Your task to perform on an android device: show emergency info Image 0: 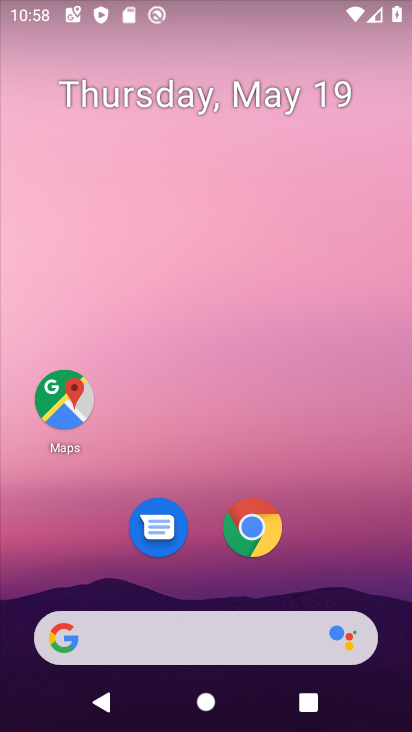
Step 0: drag from (210, 520) to (243, 4)
Your task to perform on an android device: show emergency info Image 1: 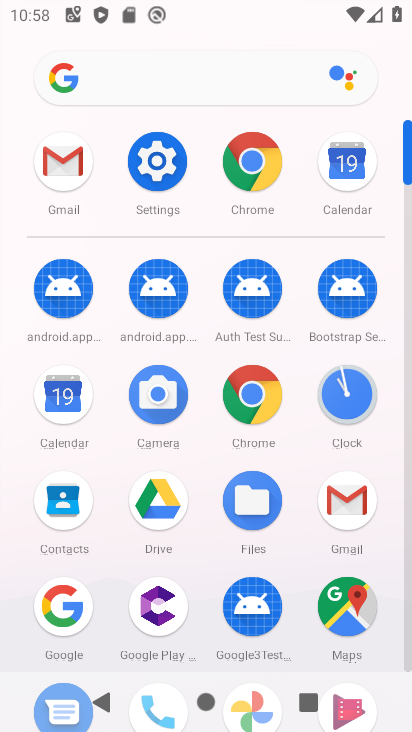
Step 1: click (156, 186)
Your task to perform on an android device: show emergency info Image 2: 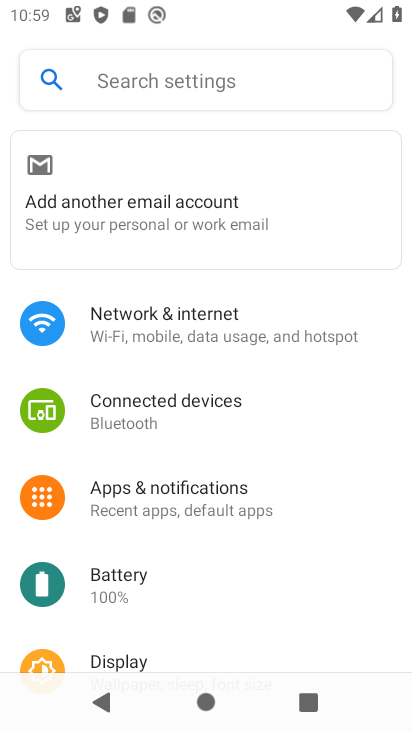
Step 2: drag from (179, 615) to (274, 201)
Your task to perform on an android device: show emergency info Image 3: 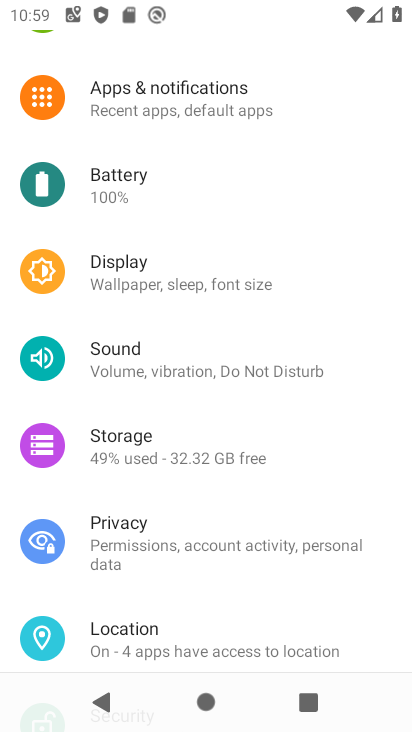
Step 3: drag from (187, 511) to (211, 72)
Your task to perform on an android device: show emergency info Image 4: 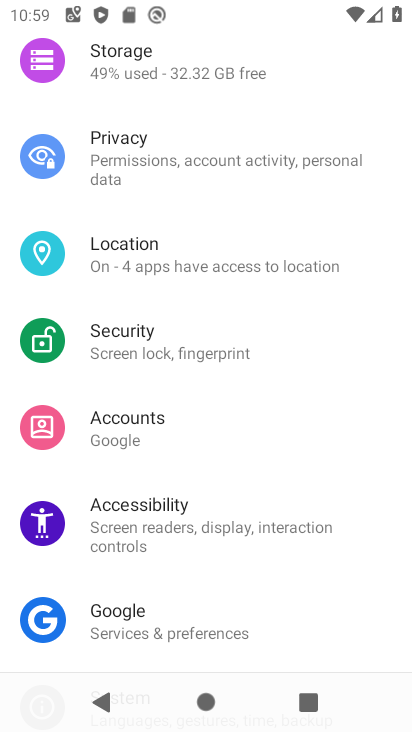
Step 4: drag from (170, 551) to (209, 80)
Your task to perform on an android device: show emergency info Image 5: 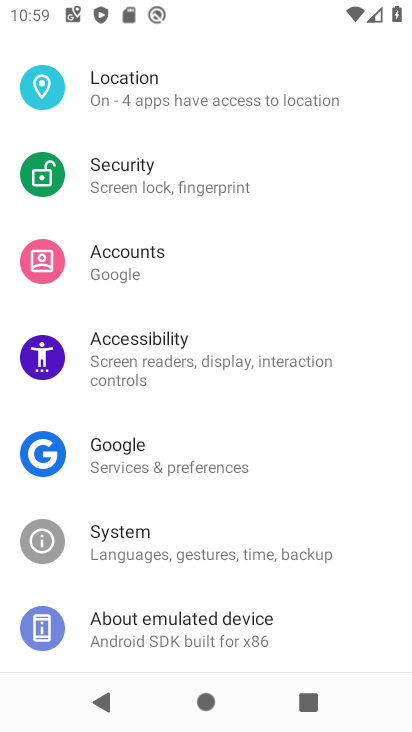
Step 5: click (167, 618)
Your task to perform on an android device: show emergency info Image 6: 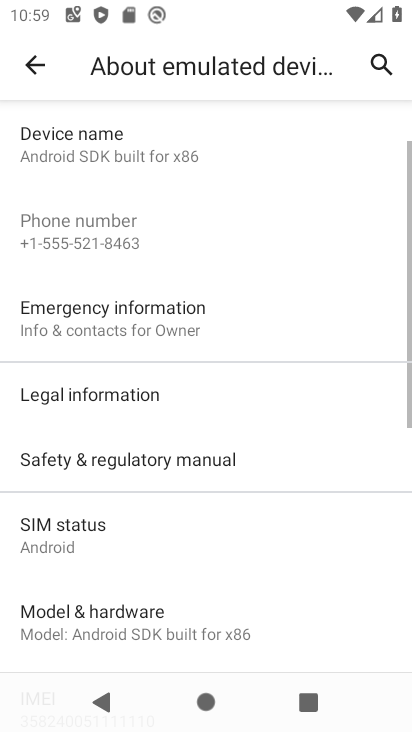
Step 6: click (143, 328)
Your task to perform on an android device: show emergency info Image 7: 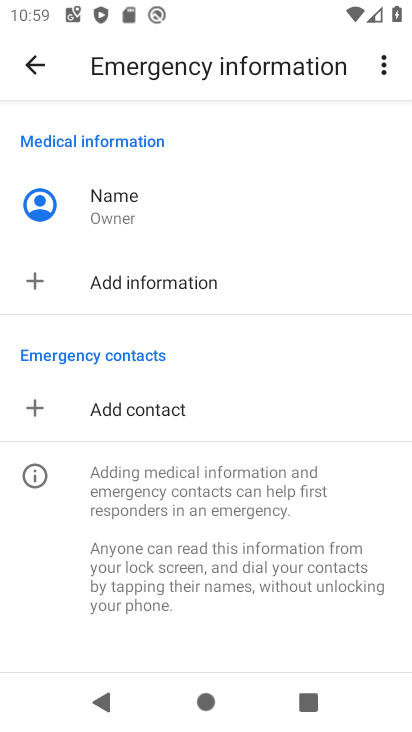
Step 7: task complete